Your task to perform on an android device: snooze an email in the gmail app Image 0: 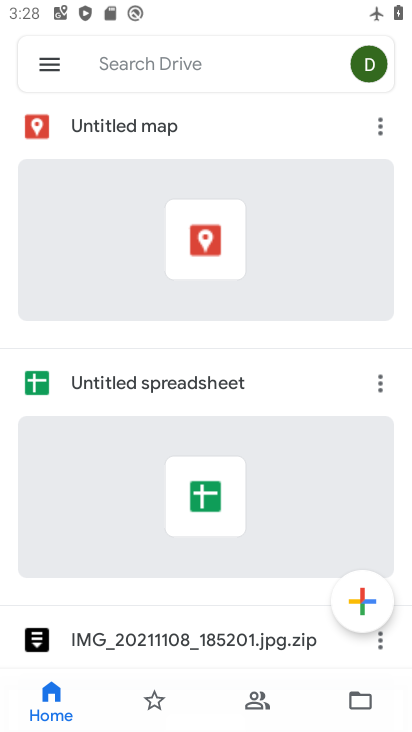
Step 0: press home button
Your task to perform on an android device: snooze an email in the gmail app Image 1: 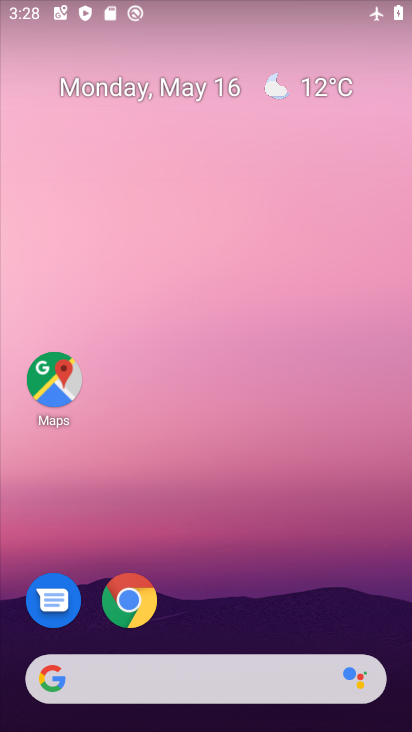
Step 1: drag from (235, 630) to (398, 525)
Your task to perform on an android device: snooze an email in the gmail app Image 2: 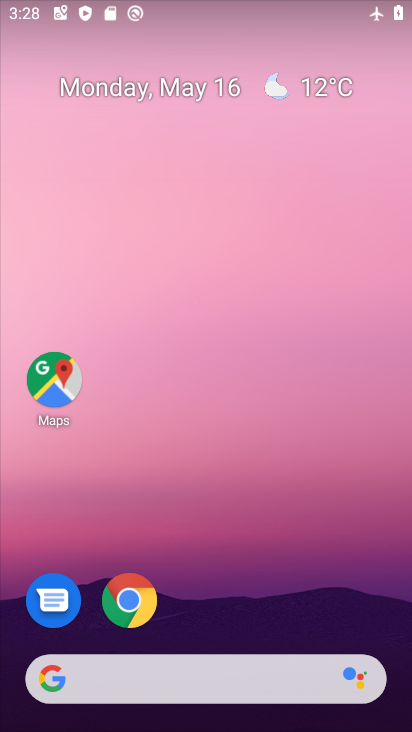
Step 2: drag from (240, 653) to (227, 3)
Your task to perform on an android device: snooze an email in the gmail app Image 3: 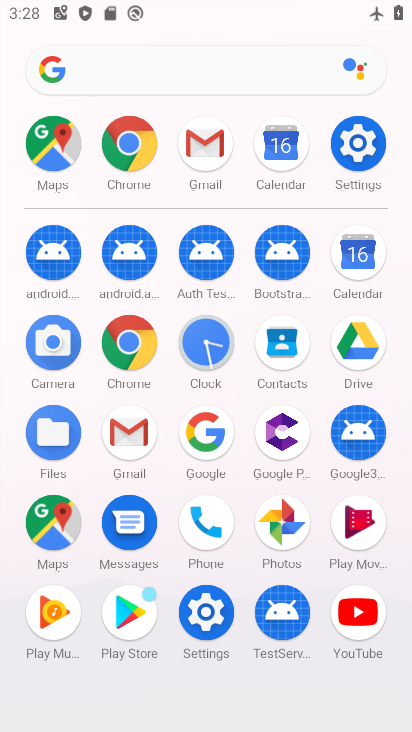
Step 3: click (110, 445)
Your task to perform on an android device: snooze an email in the gmail app Image 4: 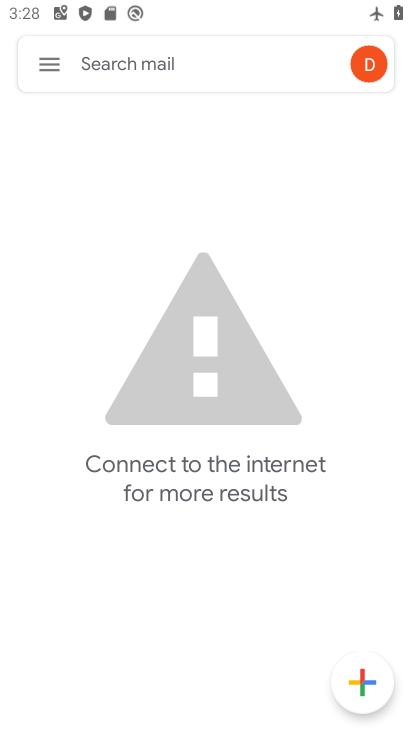
Step 4: click (44, 84)
Your task to perform on an android device: snooze an email in the gmail app Image 5: 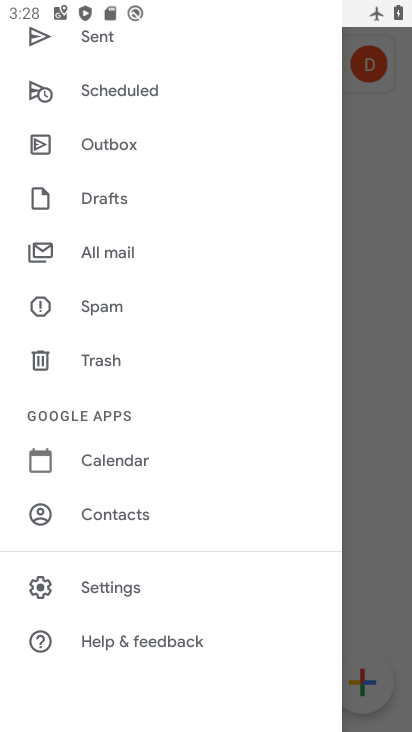
Step 5: click (108, 247)
Your task to perform on an android device: snooze an email in the gmail app Image 6: 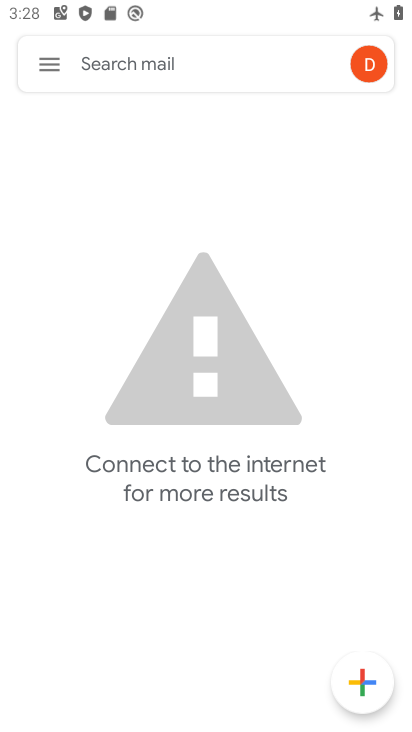
Step 6: task complete